Your task to perform on an android device: Search for Italian restaurants on Maps Image 0: 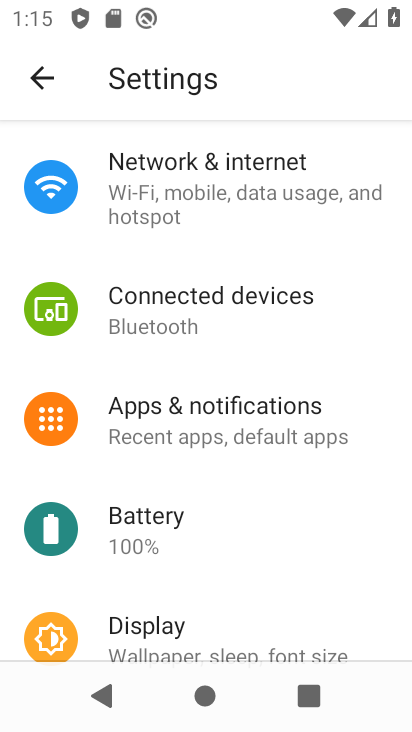
Step 0: press back button
Your task to perform on an android device: Search for Italian restaurants on Maps Image 1: 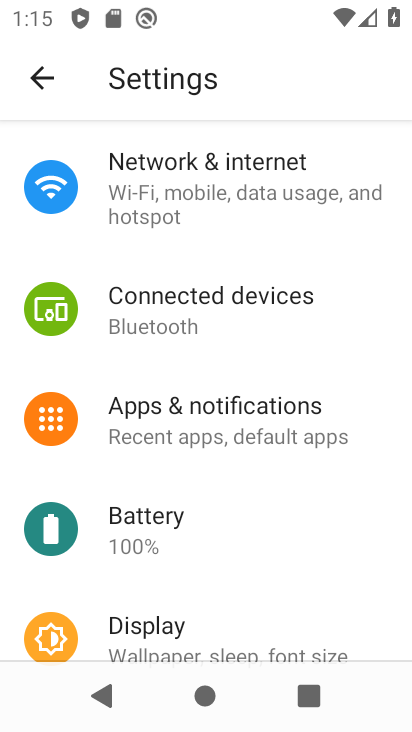
Step 1: press back button
Your task to perform on an android device: Search for Italian restaurants on Maps Image 2: 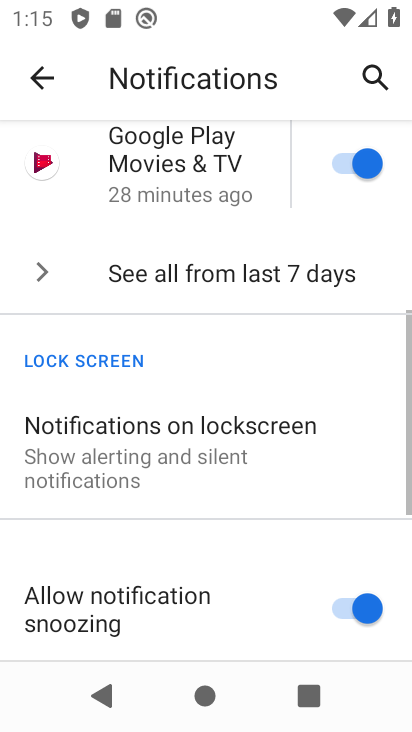
Step 2: press back button
Your task to perform on an android device: Search for Italian restaurants on Maps Image 3: 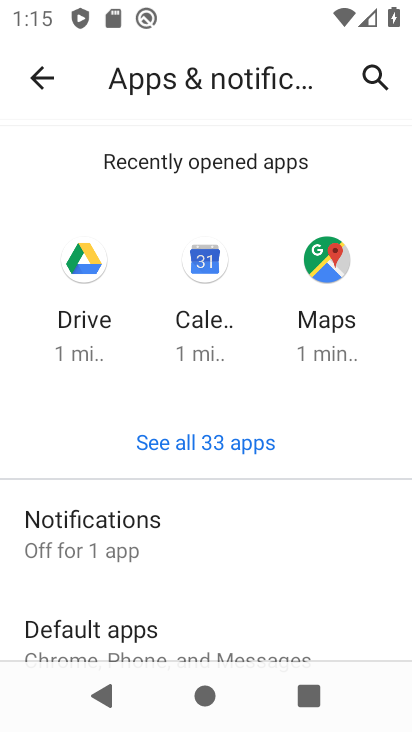
Step 3: press back button
Your task to perform on an android device: Search for Italian restaurants on Maps Image 4: 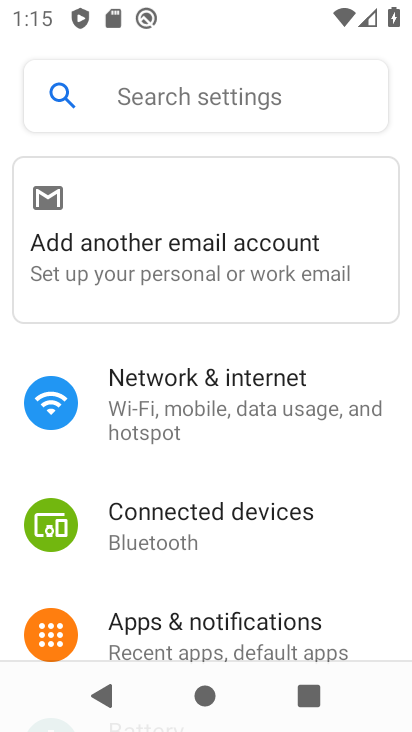
Step 4: press back button
Your task to perform on an android device: Search for Italian restaurants on Maps Image 5: 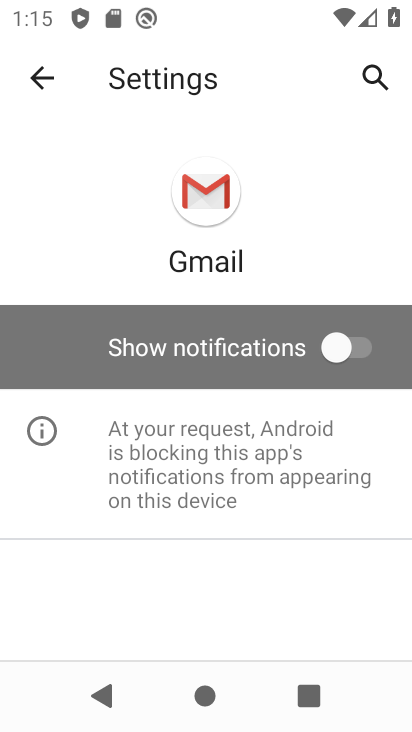
Step 5: press back button
Your task to perform on an android device: Search for Italian restaurants on Maps Image 6: 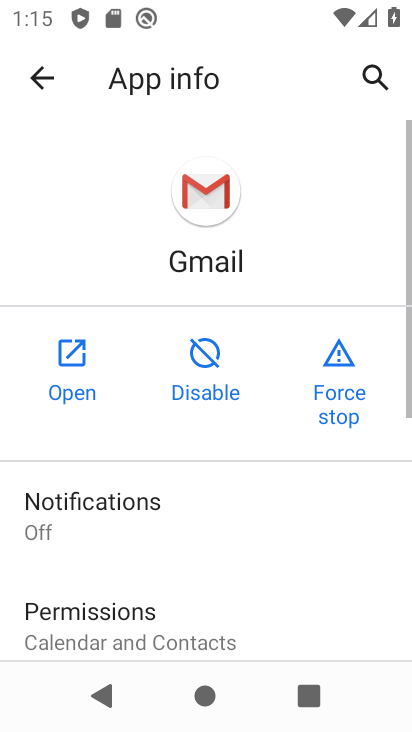
Step 6: press back button
Your task to perform on an android device: Search for Italian restaurants on Maps Image 7: 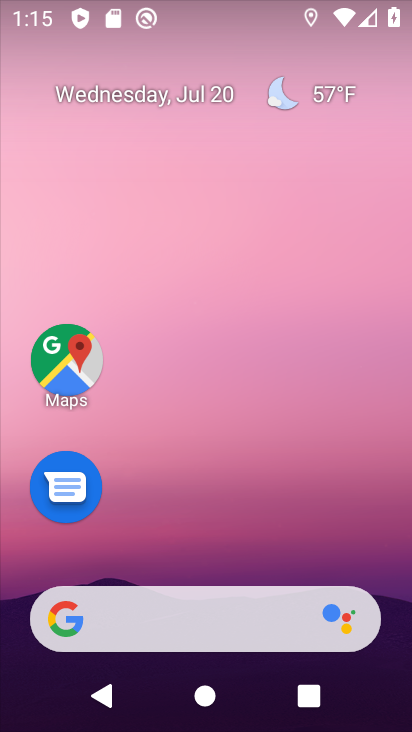
Step 7: click (85, 363)
Your task to perform on an android device: Search for Italian restaurants on Maps Image 8: 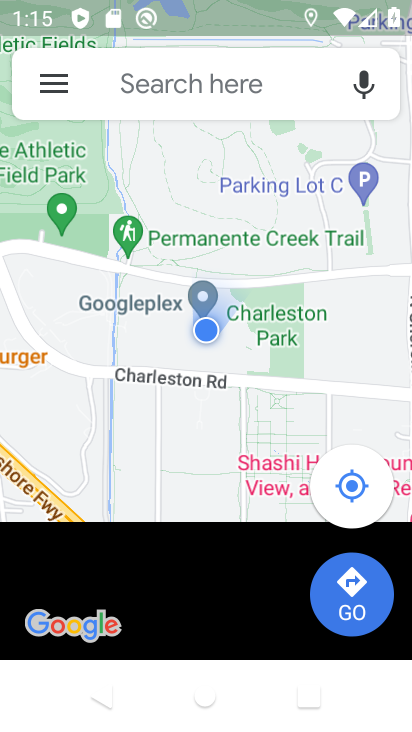
Step 8: click (172, 89)
Your task to perform on an android device: Search for Italian restaurants on Maps Image 9: 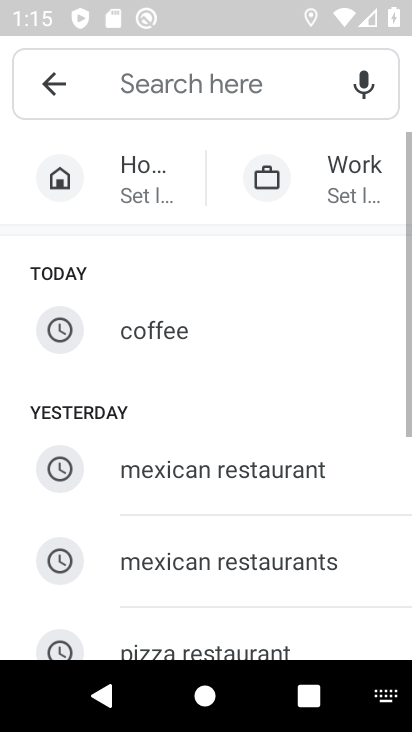
Step 9: drag from (184, 567) to (286, 220)
Your task to perform on an android device: Search for Italian restaurants on Maps Image 10: 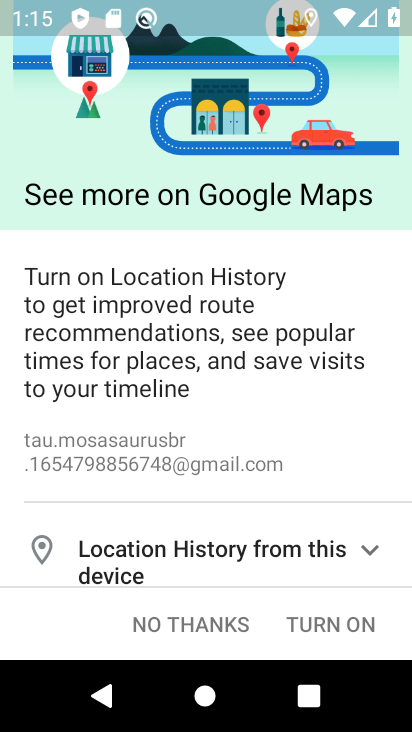
Step 10: click (185, 616)
Your task to perform on an android device: Search for Italian restaurants on Maps Image 11: 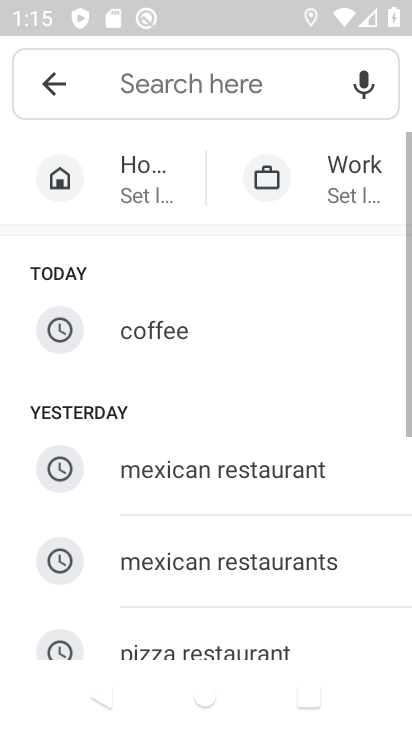
Step 11: drag from (199, 557) to (270, 137)
Your task to perform on an android device: Search for Italian restaurants on Maps Image 12: 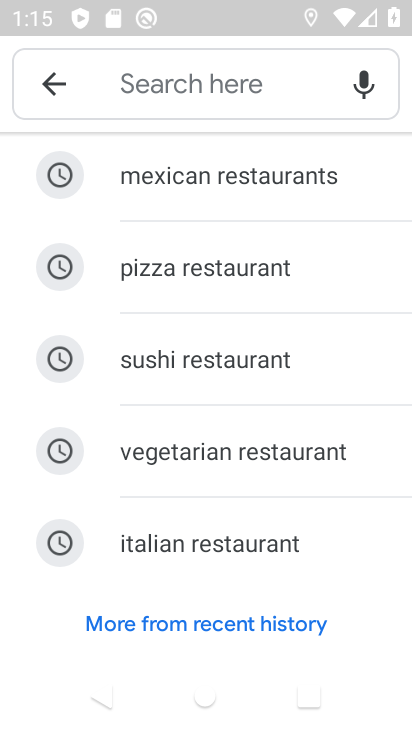
Step 12: click (138, 561)
Your task to perform on an android device: Search for Italian restaurants on Maps Image 13: 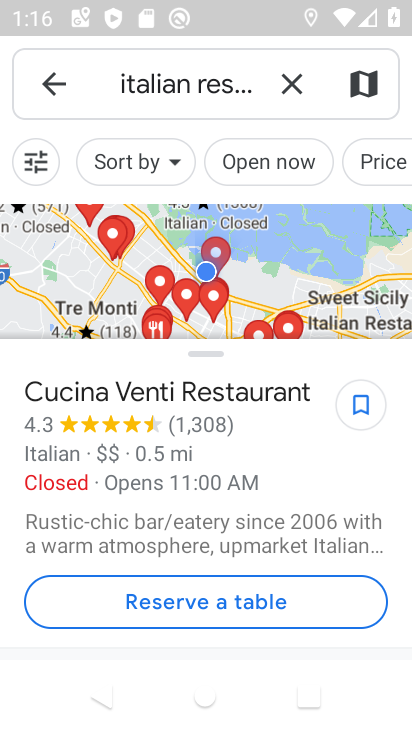
Step 13: task complete